Your task to perform on an android device: see sites visited before in the chrome app Image 0: 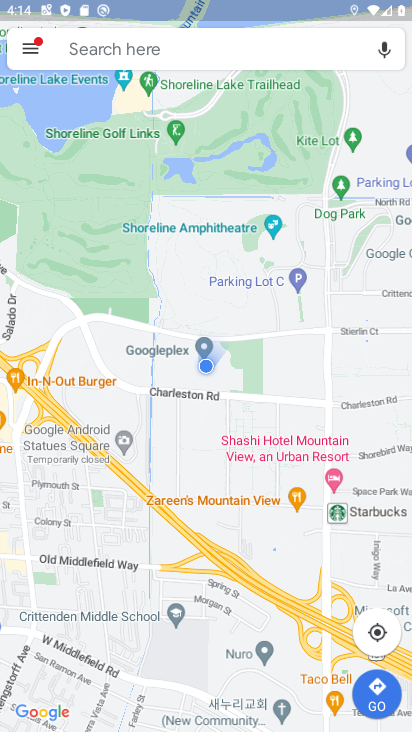
Step 0: press back button
Your task to perform on an android device: see sites visited before in the chrome app Image 1: 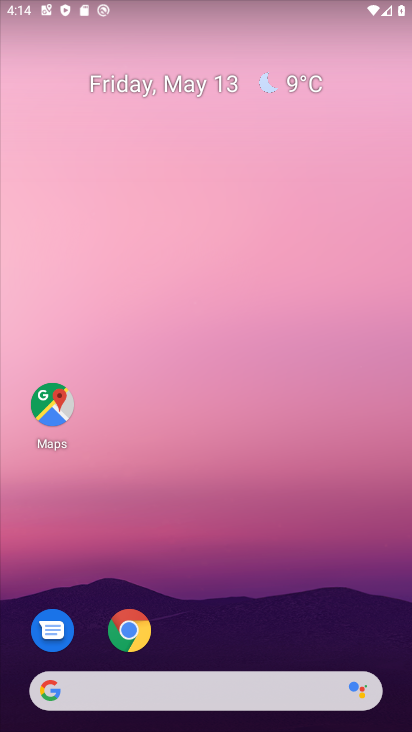
Step 1: drag from (300, 573) to (281, 45)
Your task to perform on an android device: see sites visited before in the chrome app Image 2: 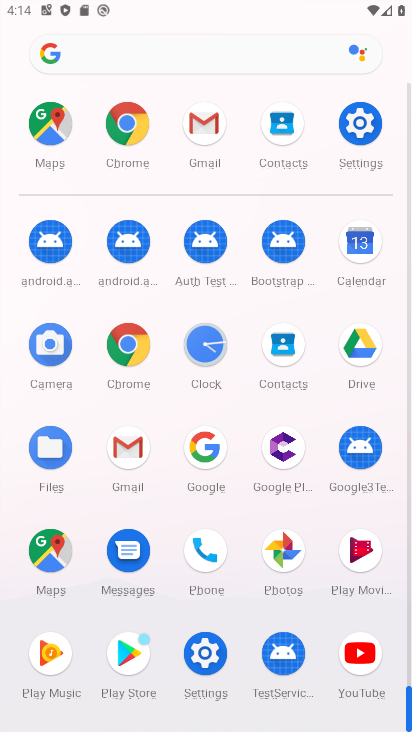
Step 2: click (125, 344)
Your task to perform on an android device: see sites visited before in the chrome app Image 3: 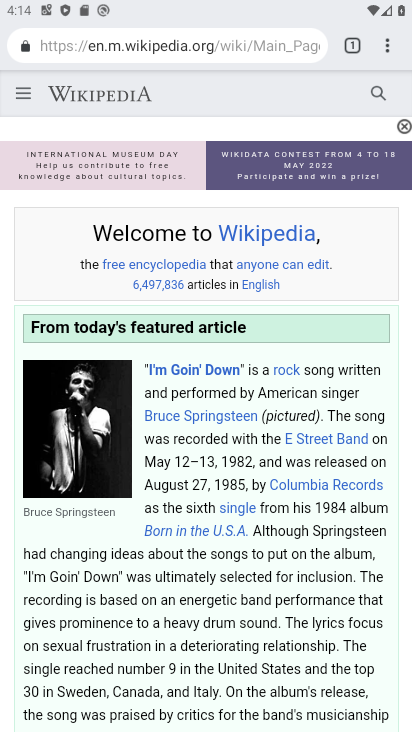
Step 3: task complete